Your task to perform on an android device: Open settings Image 0: 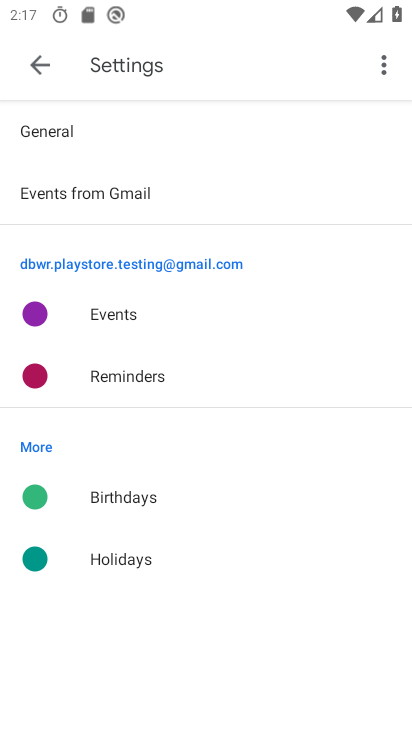
Step 0: press home button
Your task to perform on an android device: Open settings Image 1: 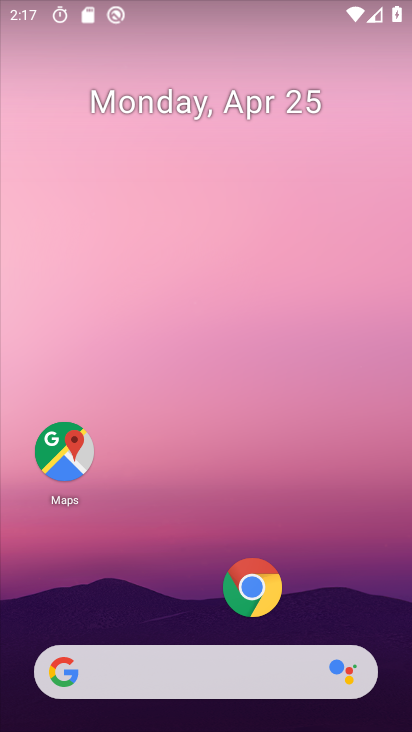
Step 1: drag from (205, 621) to (206, 0)
Your task to perform on an android device: Open settings Image 2: 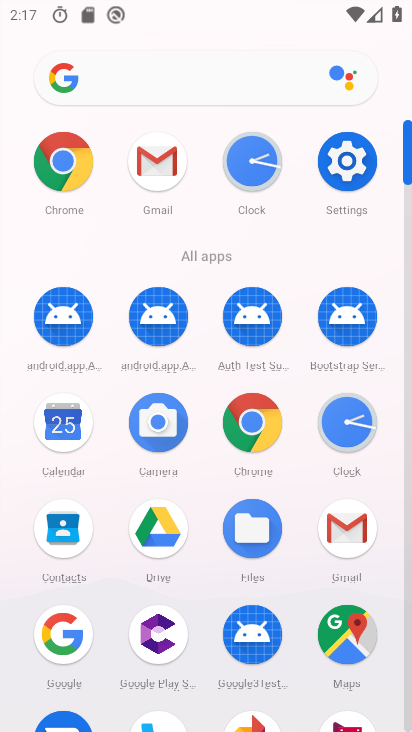
Step 2: click (345, 151)
Your task to perform on an android device: Open settings Image 3: 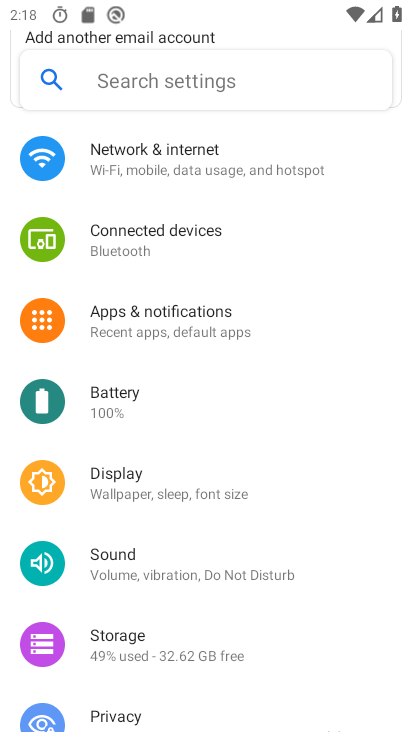
Step 3: task complete